Your task to perform on an android device: Open Amazon Image 0: 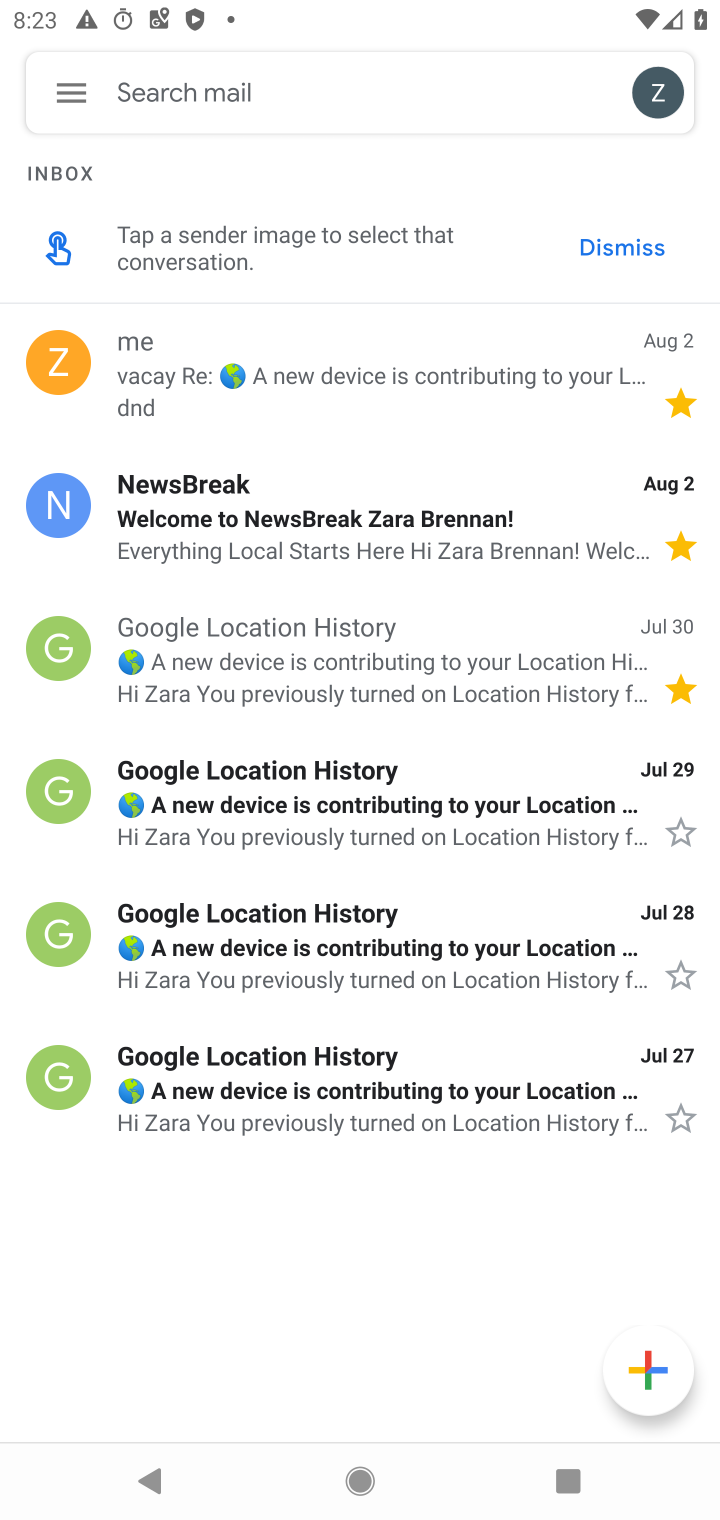
Step 0: press home button
Your task to perform on an android device: Open Amazon Image 1: 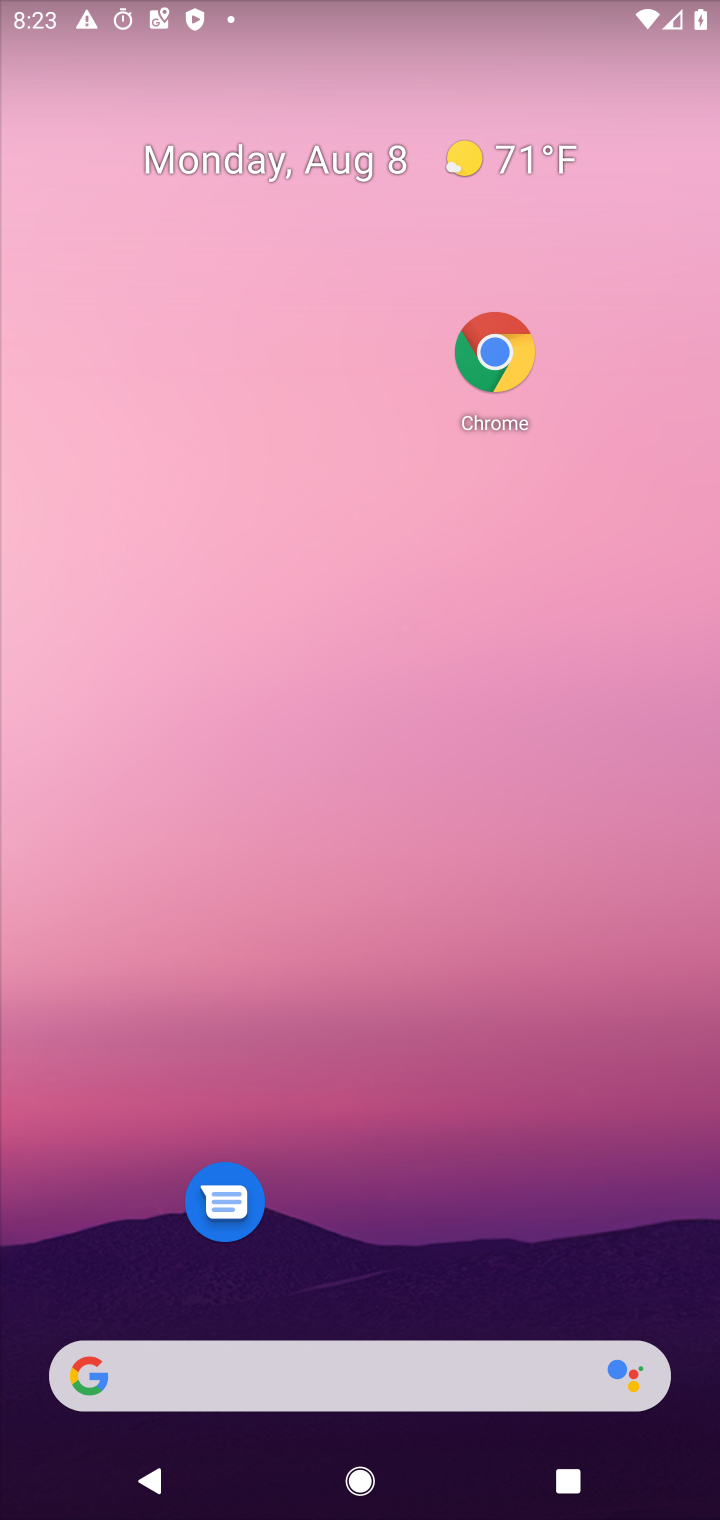
Step 1: drag from (365, 1318) to (237, 62)
Your task to perform on an android device: Open Amazon Image 2: 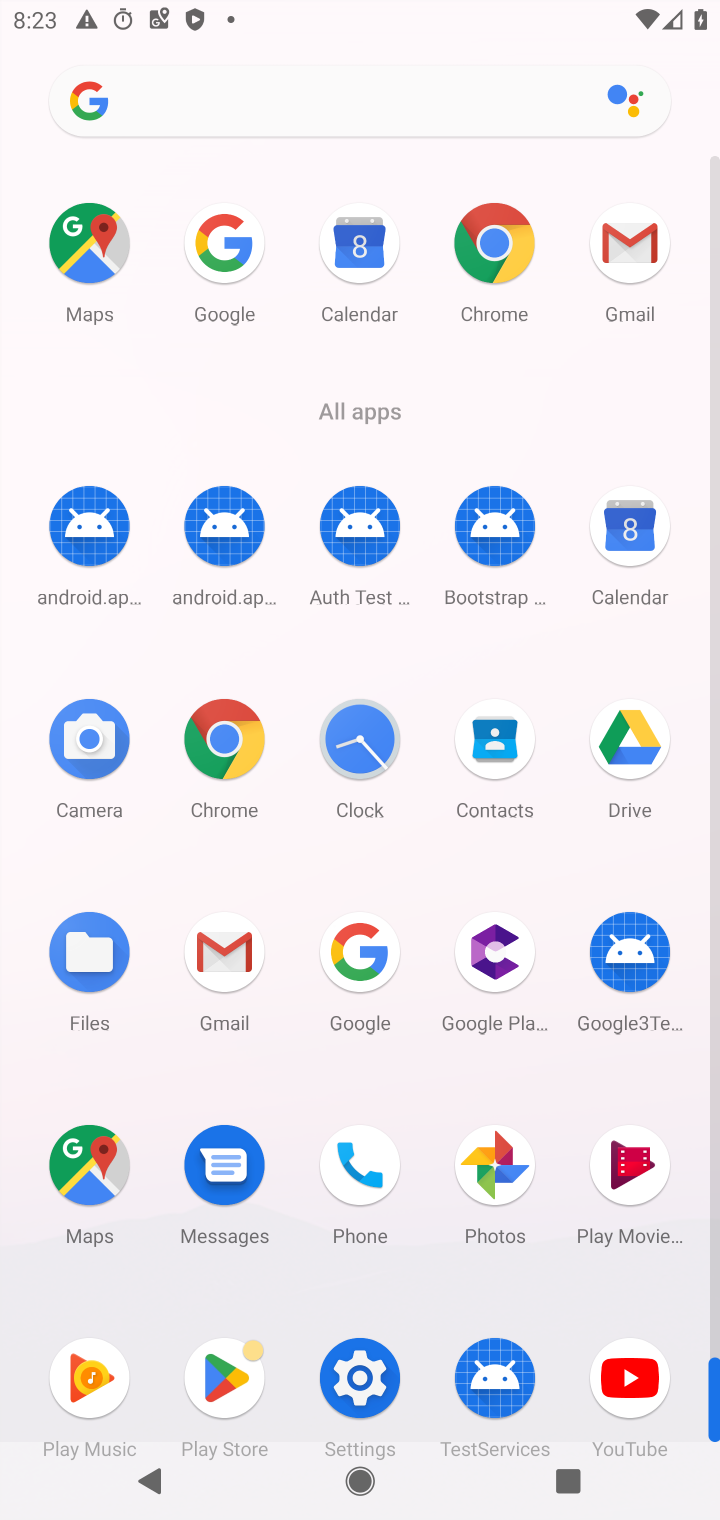
Step 2: click (471, 276)
Your task to perform on an android device: Open Amazon Image 3: 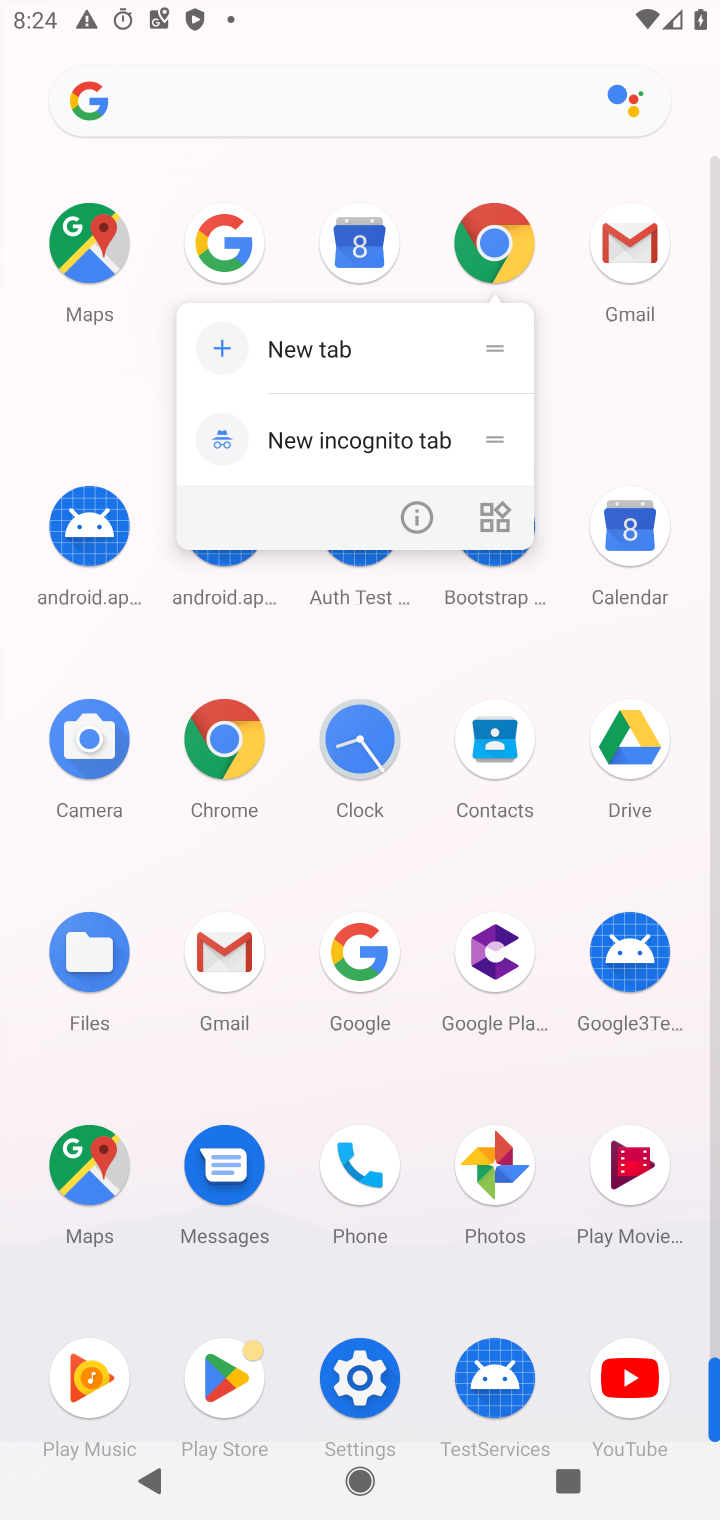
Step 3: click (517, 239)
Your task to perform on an android device: Open Amazon Image 4: 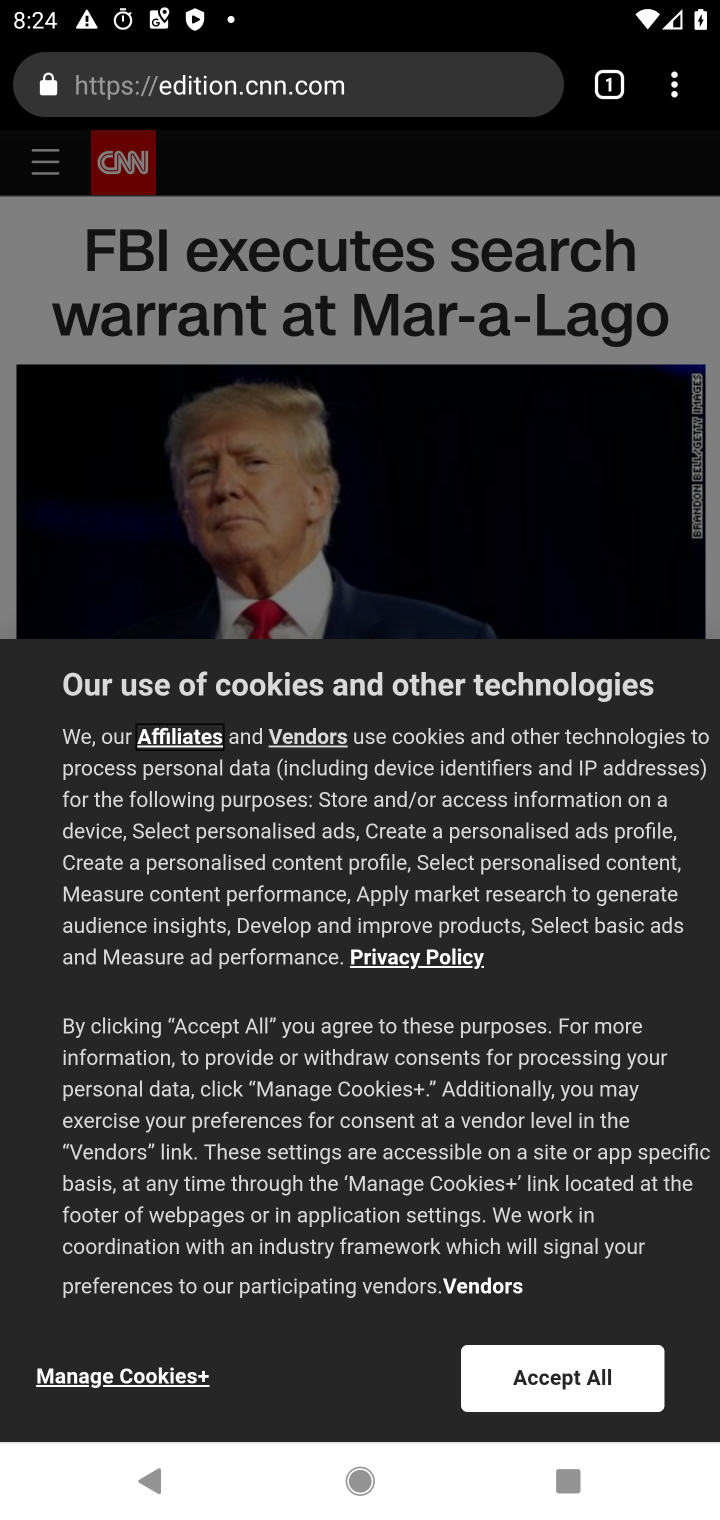
Step 4: drag from (639, 192) to (554, 677)
Your task to perform on an android device: Open Amazon Image 5: 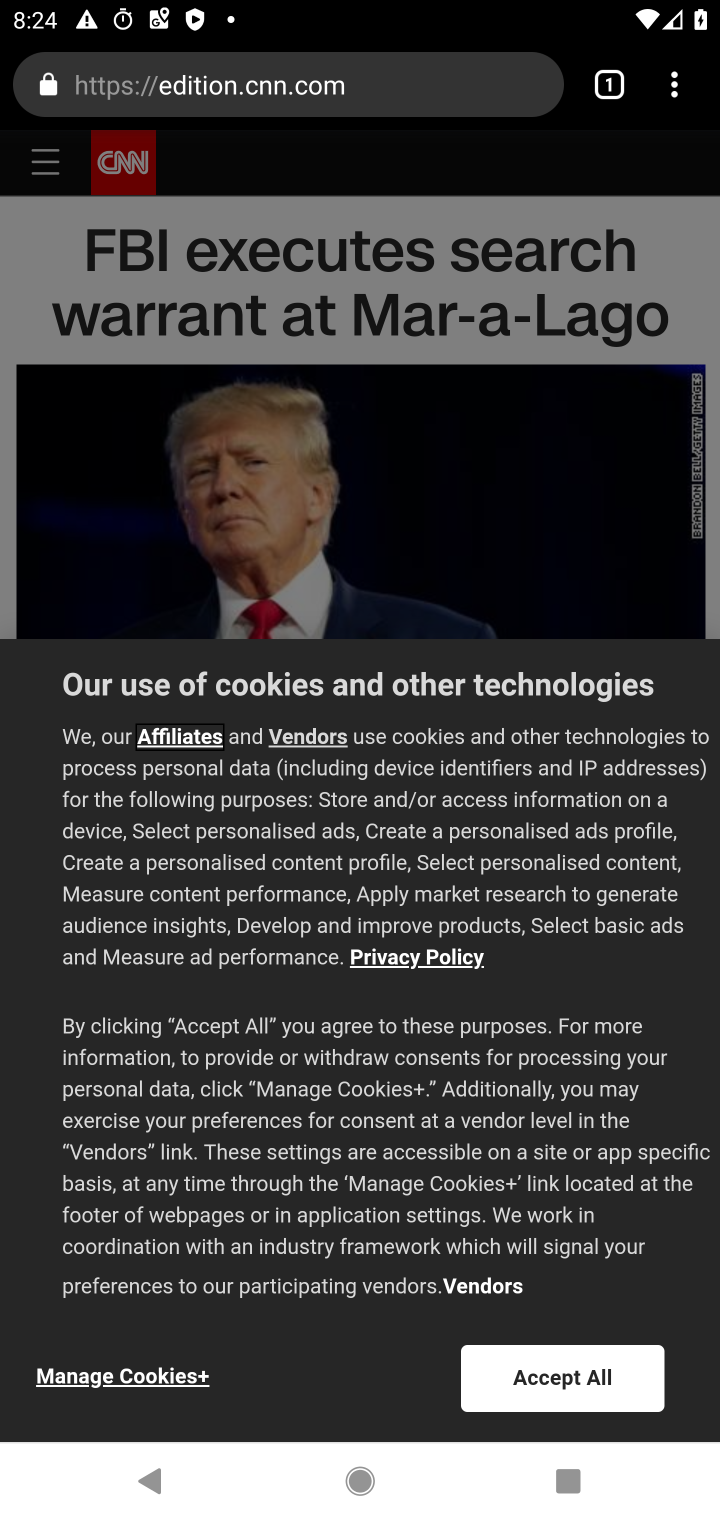
Step 5: drag from (598, 81) to (597, 622)
Your task to perform on an android device: Open Amazon Image 6: 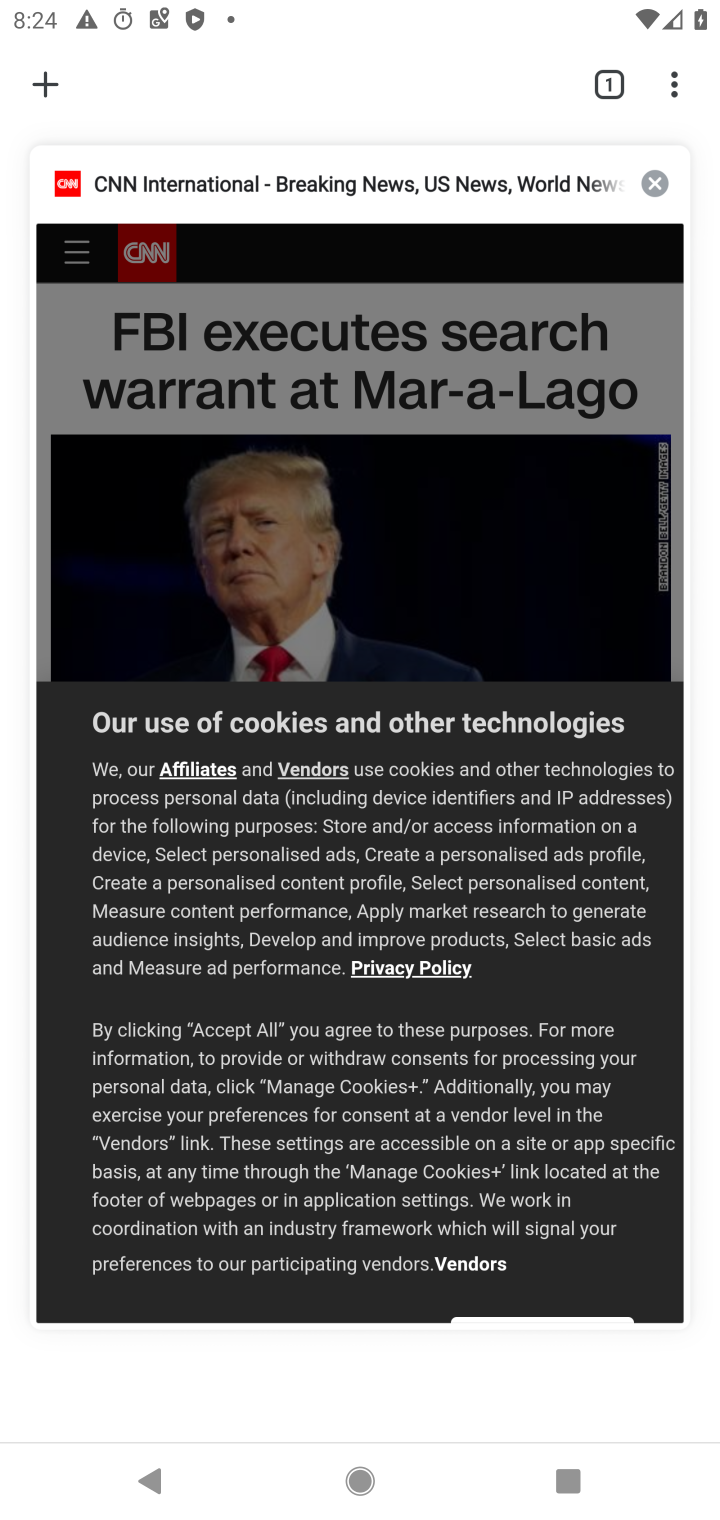
Step 6: click (50, 82)
Your task to perform on an android device: Open Amazon Image 7: 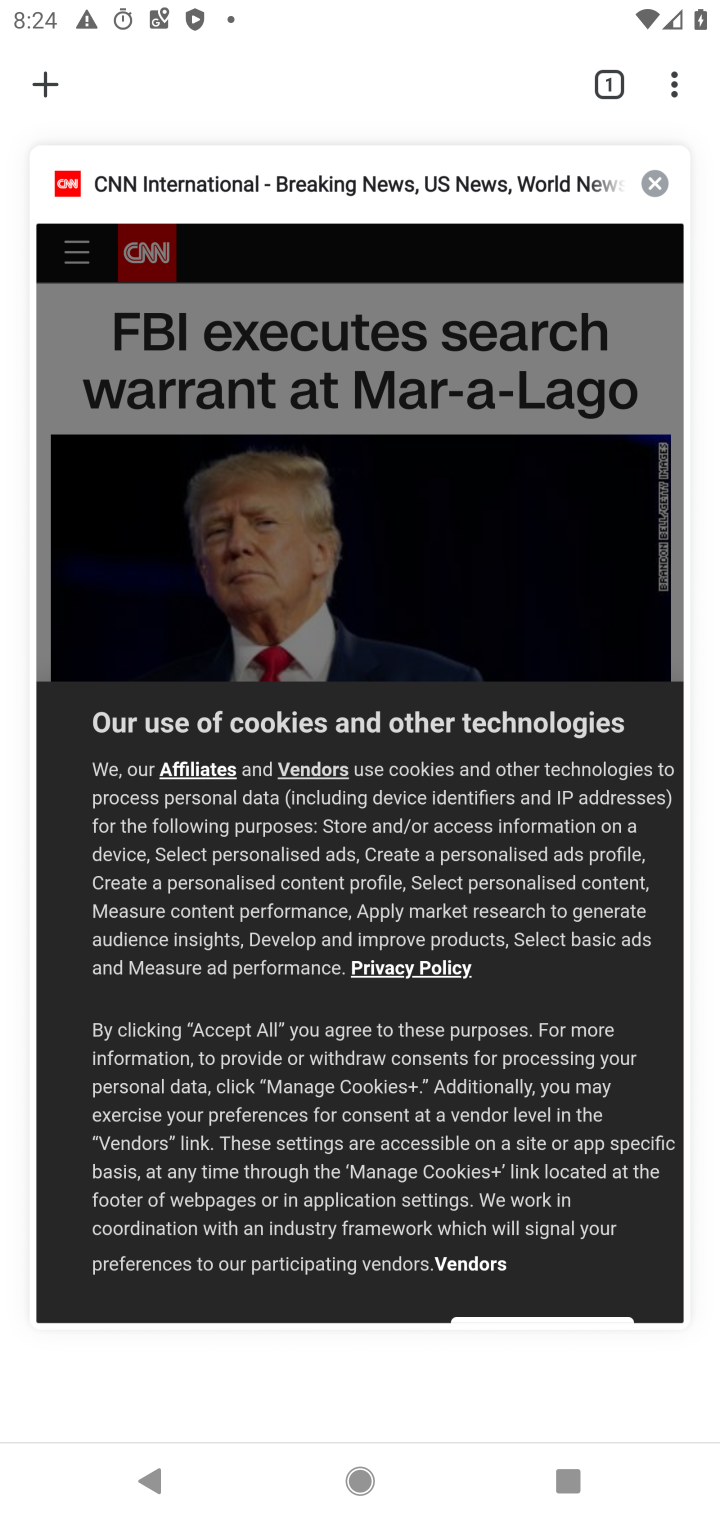
Step 7: click (48, 93)
Your task to perform on an android device: Open Amazon Image 8: 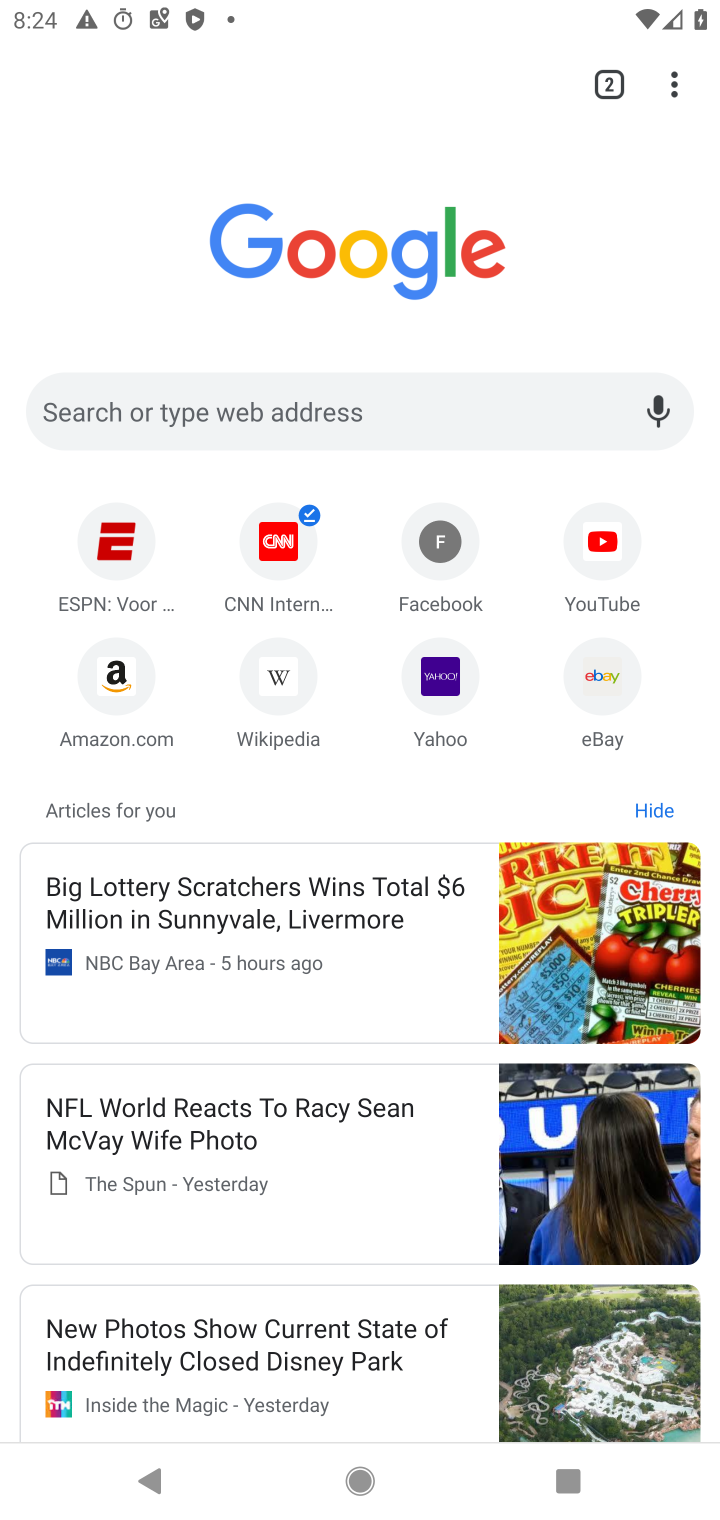
Step 8: click (124, 696)
Your task to perform on an android device: Open Amazon Image 9: 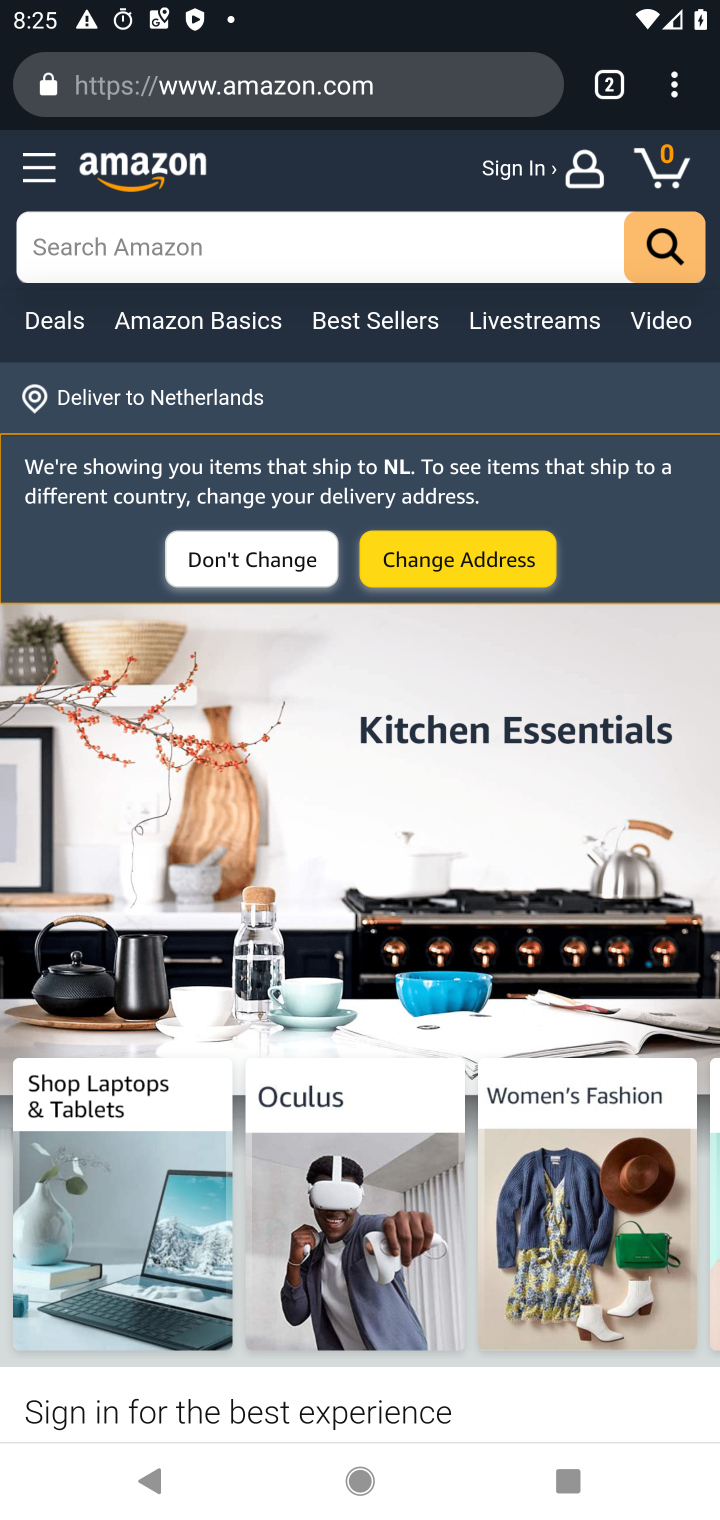
Step 9: task complete